Your task to perform on an android device: turn off notifications settings in the gmail app Image 0: 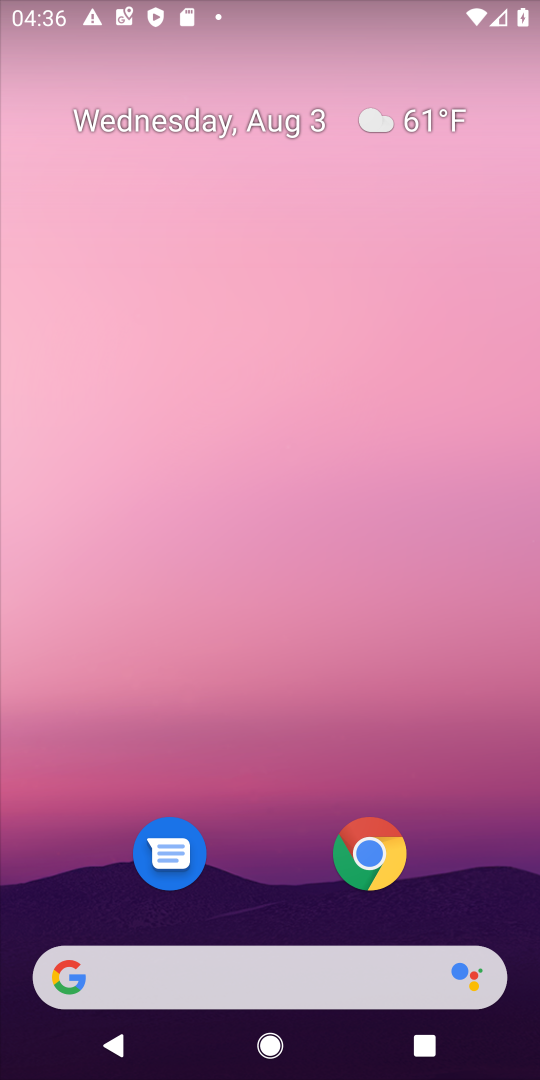
Step 0: drag from (201, 975) to (203, 589)
Your task to perform on an android device: turn off notifications settings in the gmail app Image 1: 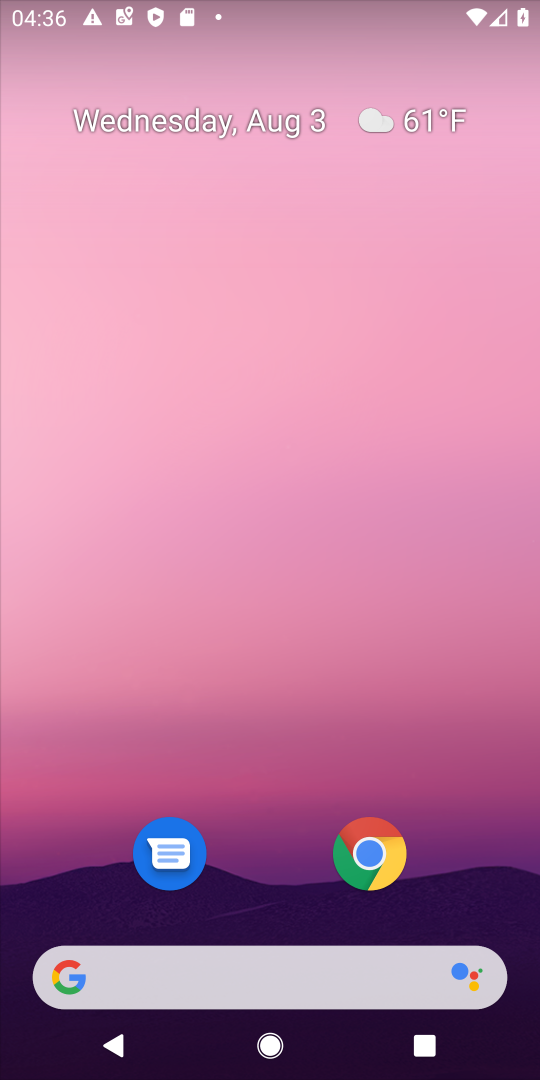
Step 1: drag from (197, 1057) to (228, 86)
Your task to perform on an android device: turn off notifications settings in the gmail app Image 2: 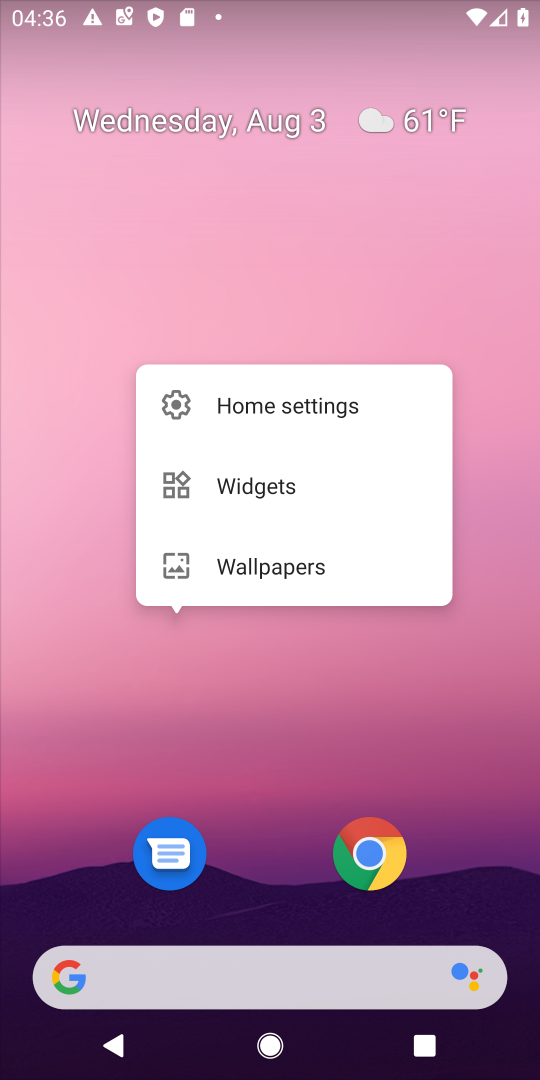
Step 2: click (245, 679)
Your task to perform on an android device: turn off notifications settings in the gmail app Image 3: 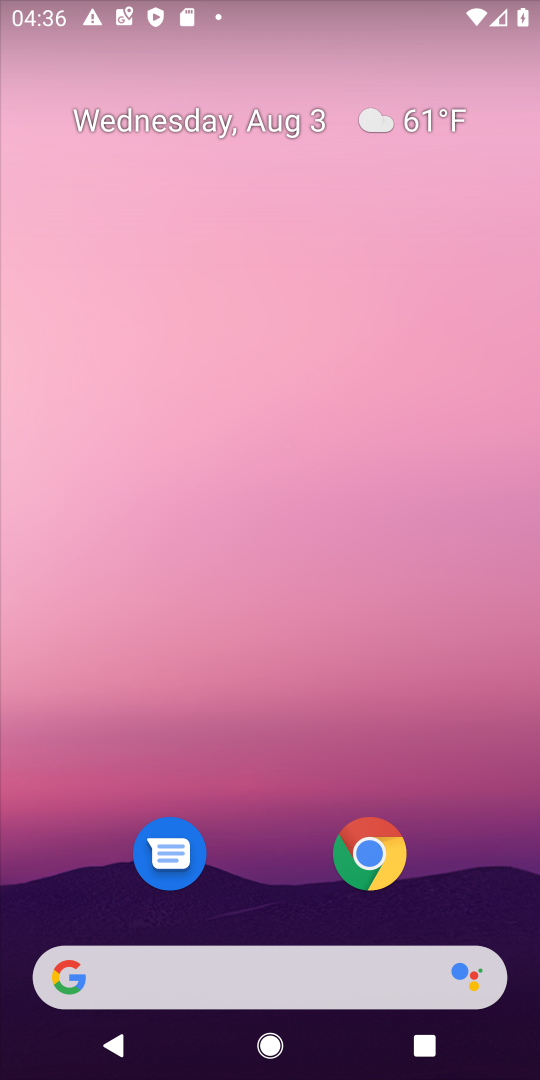
Step 3: drag from (266, 582) to (298, 86)
Your task to perform on an android device: turn off notifications settings in the gmail app Image 4: 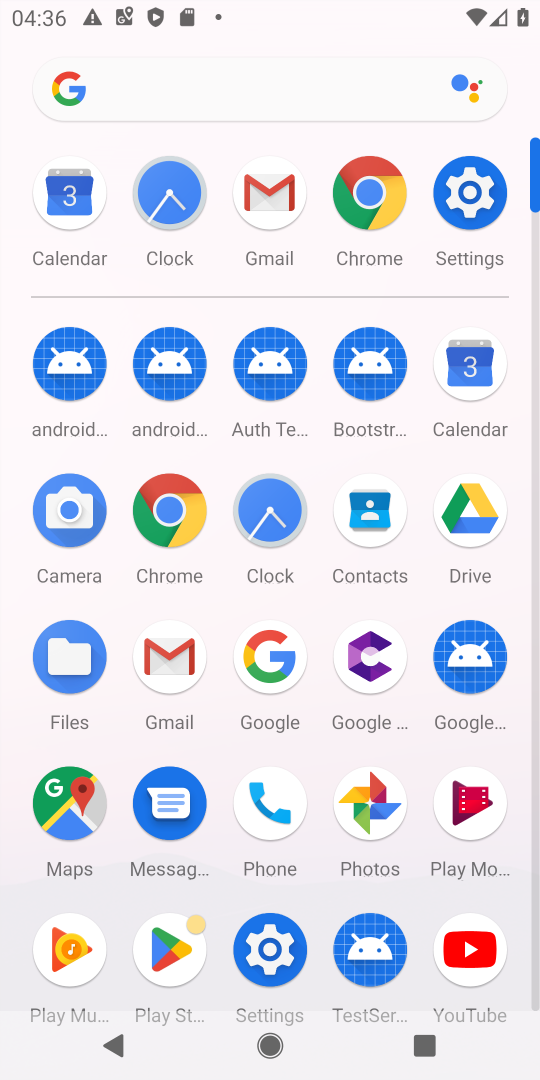
Step 4: click (172, 649)
Your task to perform on an android device: turn off notifications settings in the gmail app Image 5: 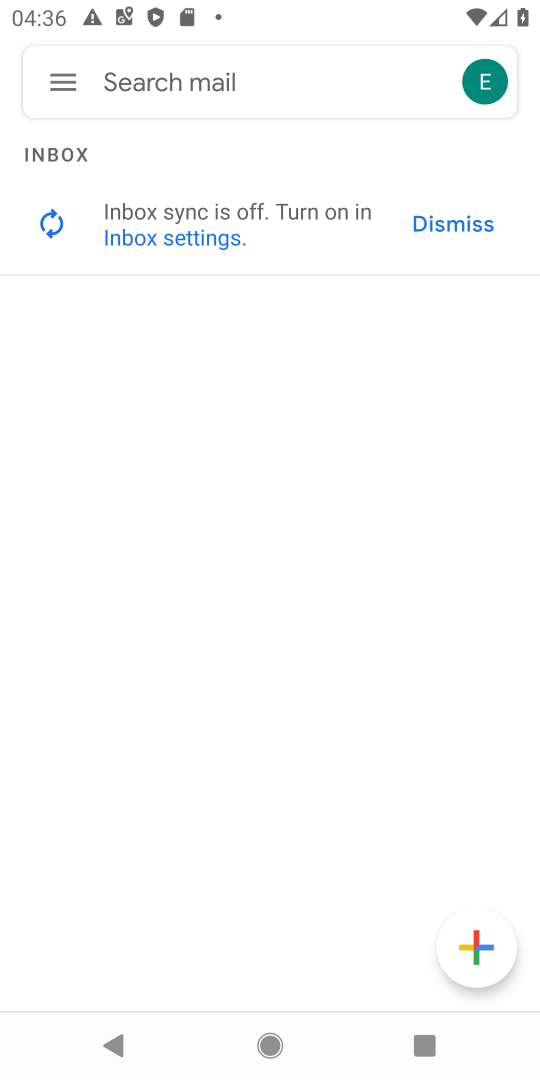
Step 5: click (61, 91)
Your task to perform on an android device: turn off notifications settings in the gmail app Image 6: 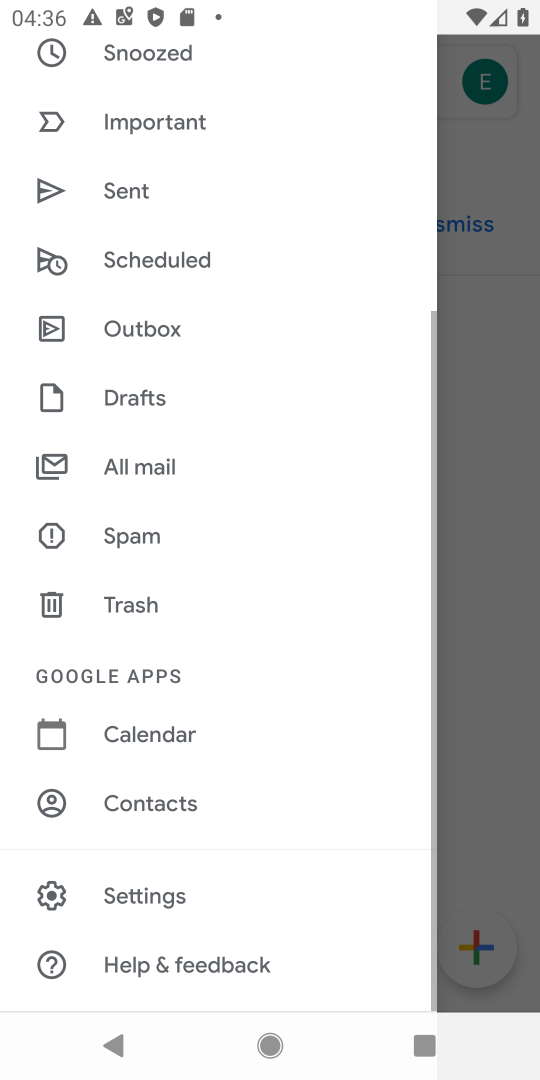
Step 6: click (120, 892)
Your task to perform on an android device: turn off notifications settings in the gmail app Image 7: 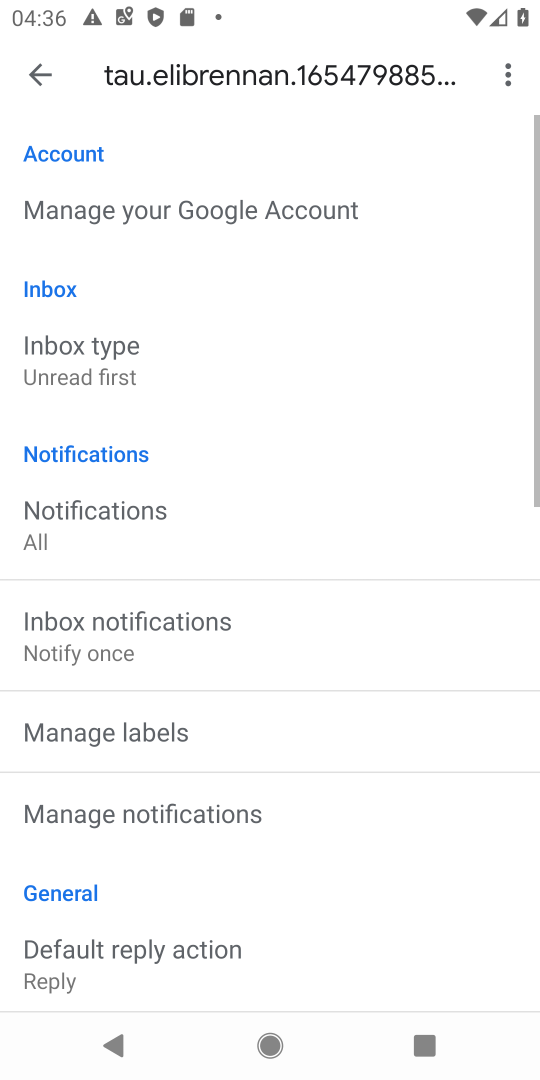
Step 7: drag from (211, 907) to (219, 591)
Your task to perform on an android device: turn off notifications settings in the gmail app Image 8: 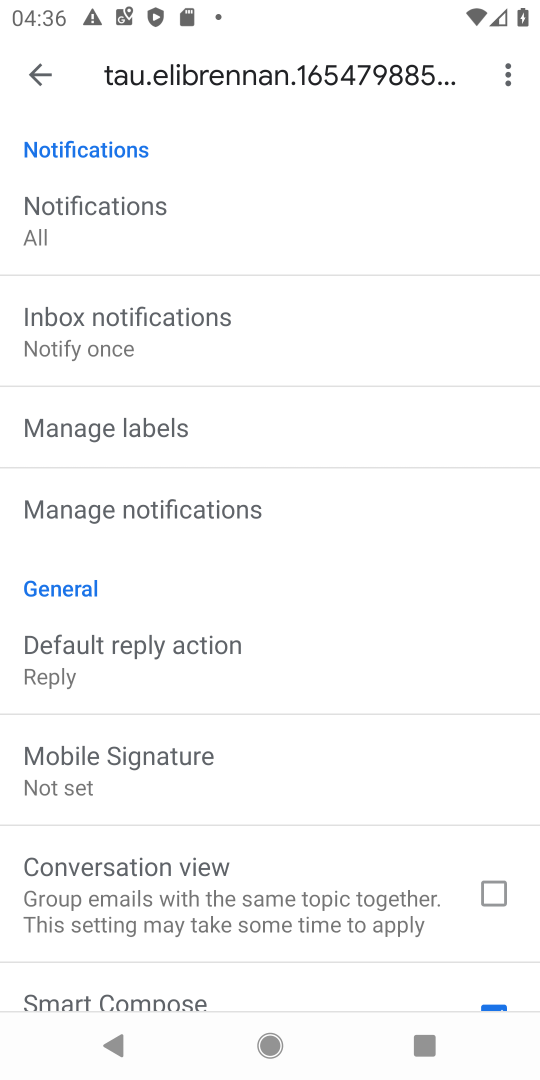
Step 8: click (75, 193)
Your task to perform on an android device: turn off notifications settings in the gmail app Image 9: 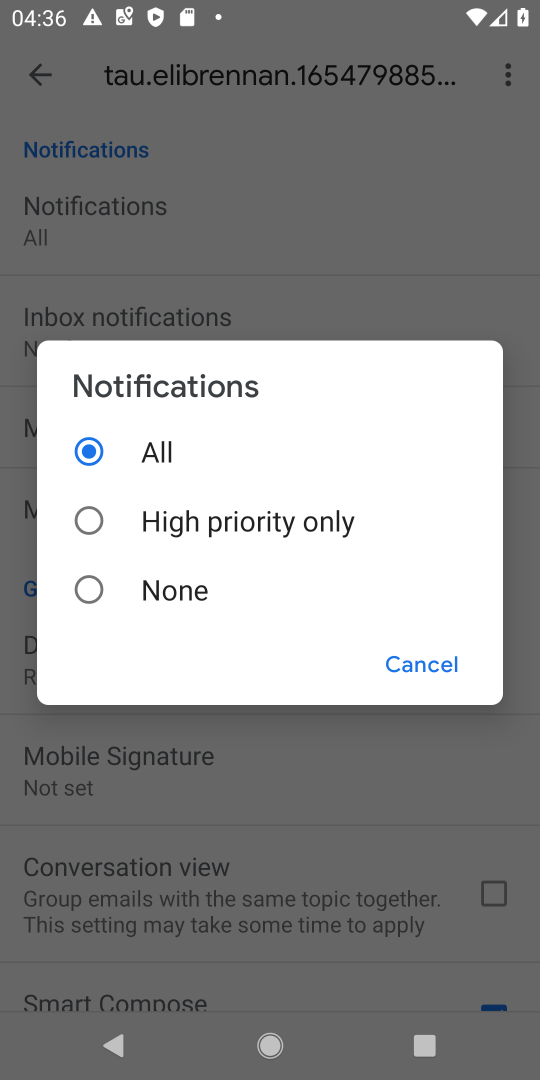
Step 9: click (94, 593)
Your task to perform on an android device: turn off notifications settings in the gmail app Image 10: 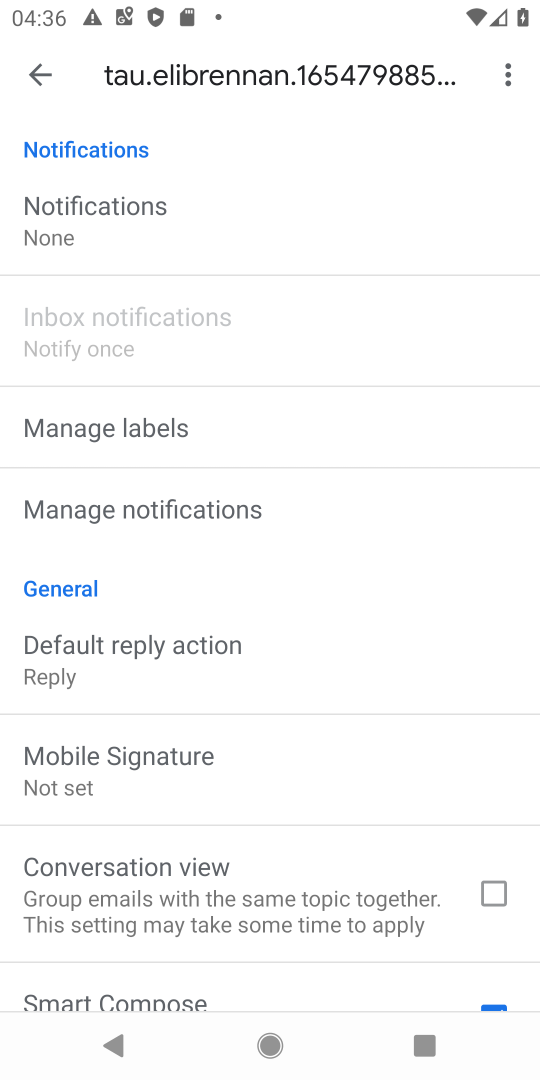
Step 10: task complete